Your task to perform on an android device: Open the calendar and show me this week's events? Image 0: 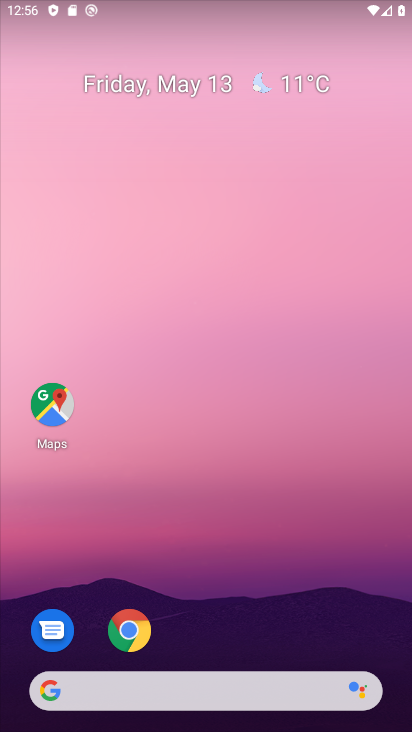
Step 0: drag from (274, 634) to (338, 184)
Your task to perform on an android device: Open the calendar and show me this week's events? Image 1: 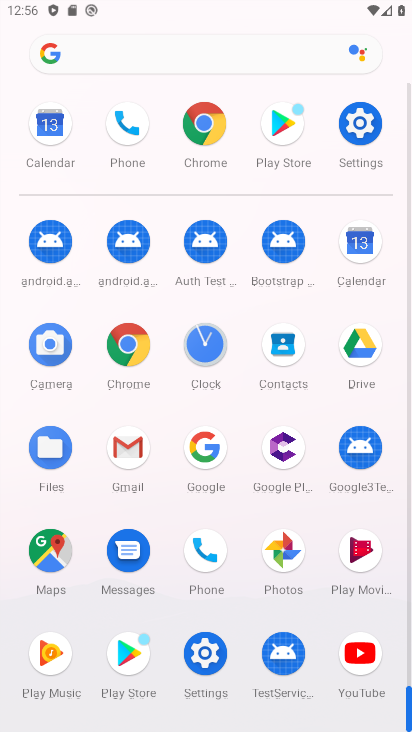
Step 1: click (358, 257)
Your task to perform on an android device: Open the calendar and show me this week's events? Image 2: 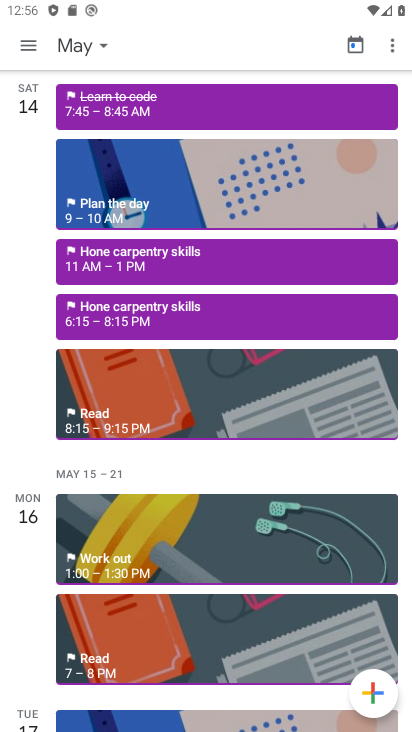
Step 2: click (82, 47)
Your task to perform on an android device: Open the calendar and show me this week's events? Image 3: 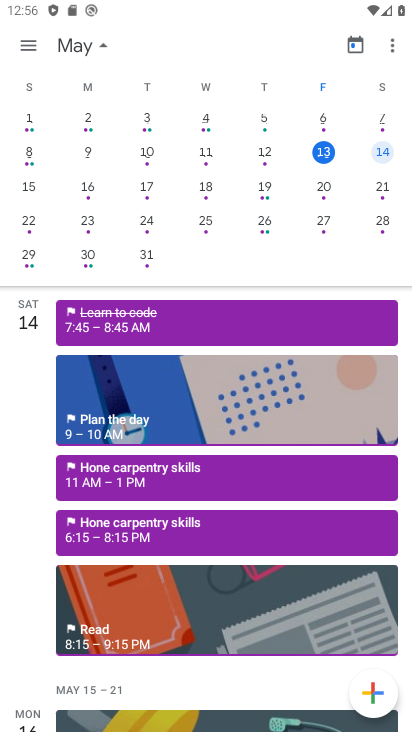
Step 3: drag from (292, 193) to (0, 198)
Your task to perform on an android device: Open the calendar and show me this week's events? Image 4: 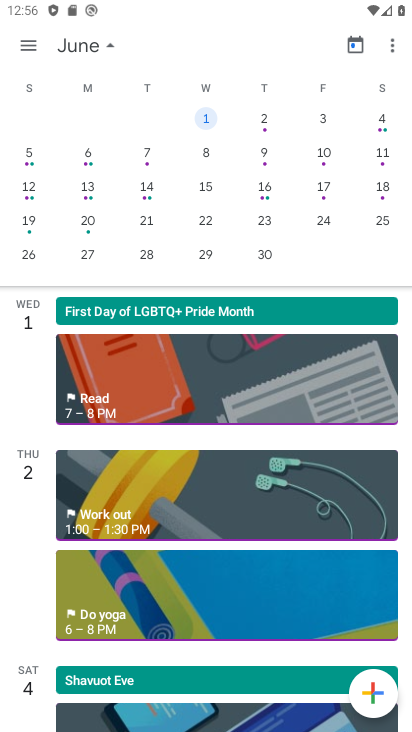
Step 4: drag from (53, 184) to (411, 176)
Your task to perform on an android device: Open the calendar and show me this week's events? Image 5: 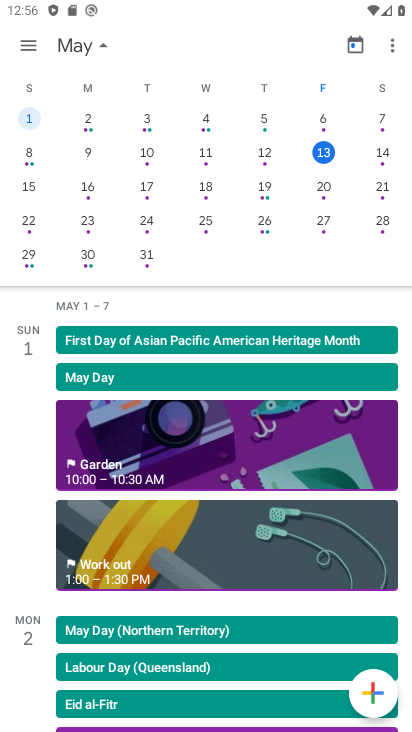
Step 5: click (320, 156)
Your task to perform on an android device: Open the calendar and show me this week's events? Image 6: 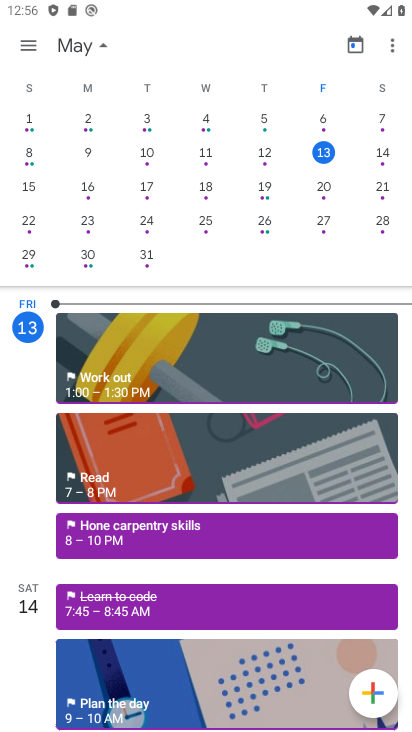
Step 6: click (26, 45)
Your task to perform on an android device: Open the calendar and show me this week's events? Image 7: 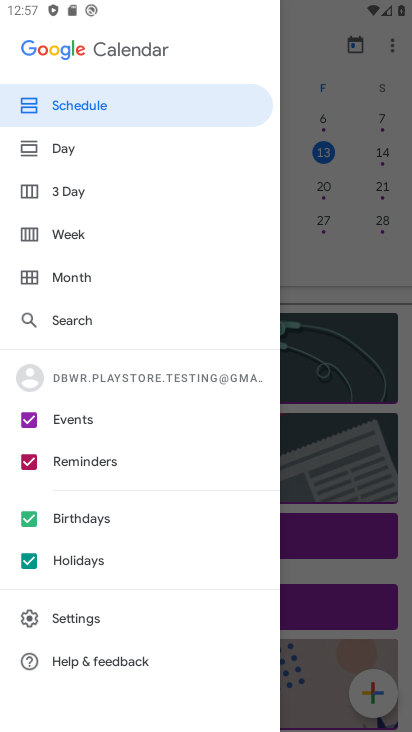
Step 7: click (88, 236)
Your task to perform on an android device: Open the calendar and show me this week's events? Image 8: 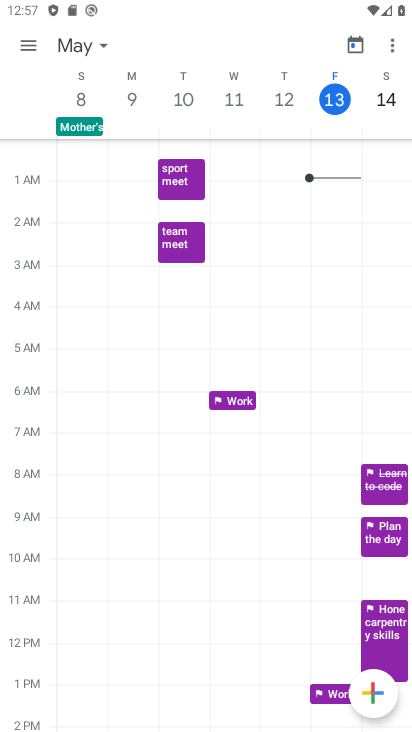
Step 8: task complete